Your task to perform on an android device: find photos in the google photos app Image 0: 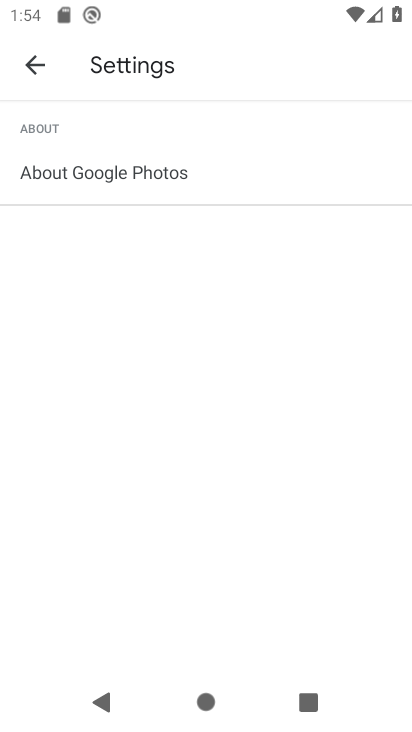
Step 0: click (38, 71)
Your task to perform on an android device: find photos in the google photos app Image 1: 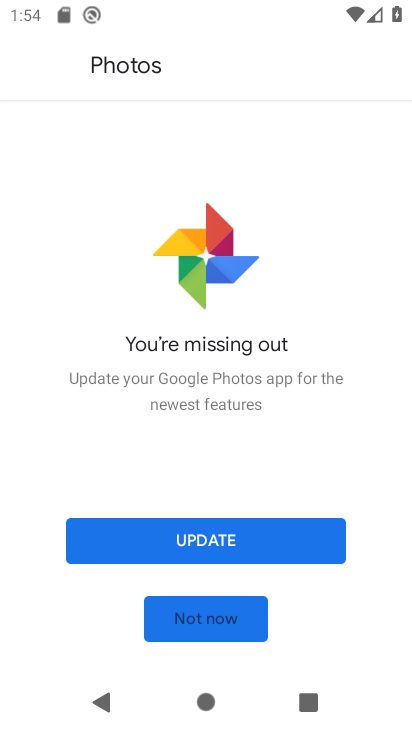
Step 1: click (174, 613)
Your task to perform on an android device: find photos in the google photos app Image 2: 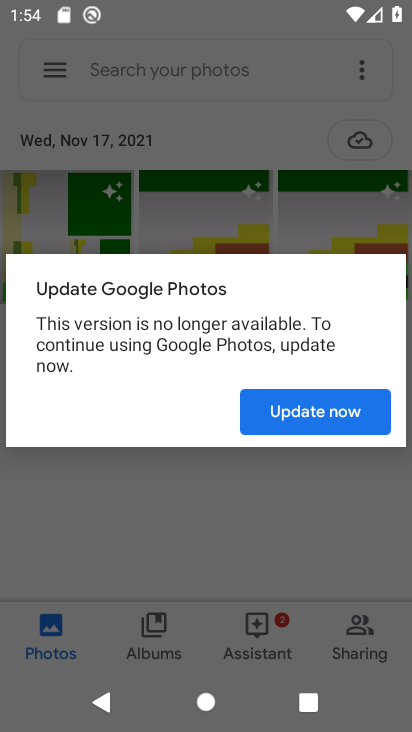
Step 2: click (188, 538)
Your task to perform on an android device: find photos in the google photos app Image 3: 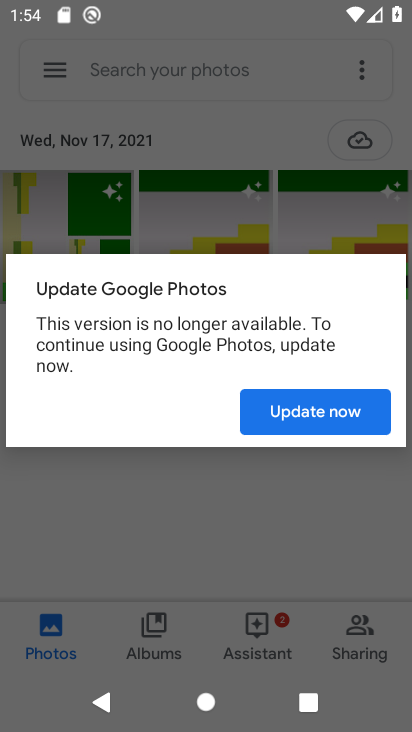
Step 3: press back button
Your task to perform on an android device: find photos in the google photos app Image 4: 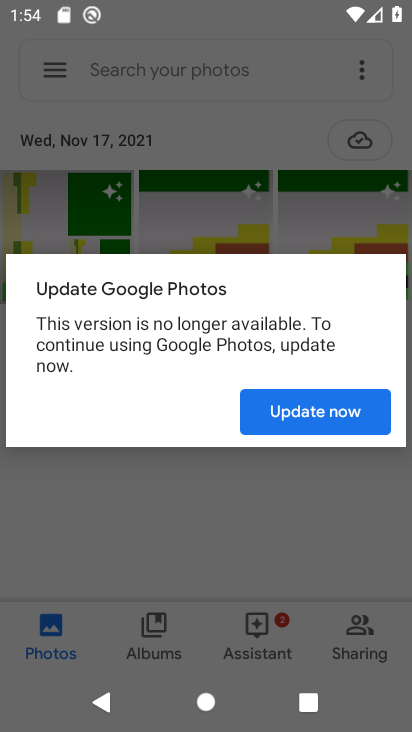
Step 4: click (296, 422)
Your task to perform on an android device: find photos in the google photos app Image 5: 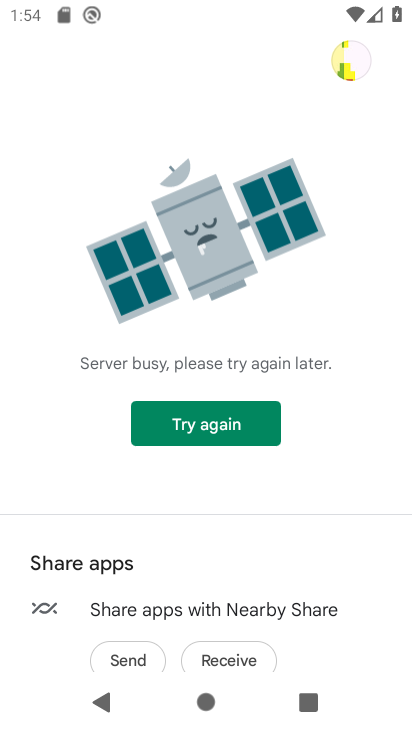
Step 5: press back button
Your task to perform on an android device: find photos in the google photos app Image 6: 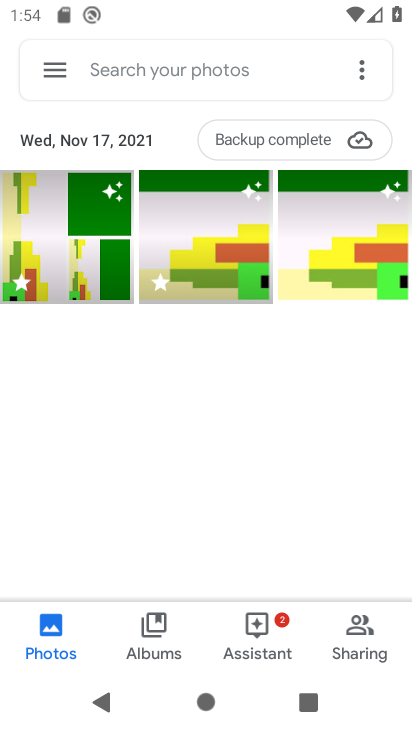
Step 6: click (61, 628)
Your task to perform on an android device: find photos in the google photos app Image 7: 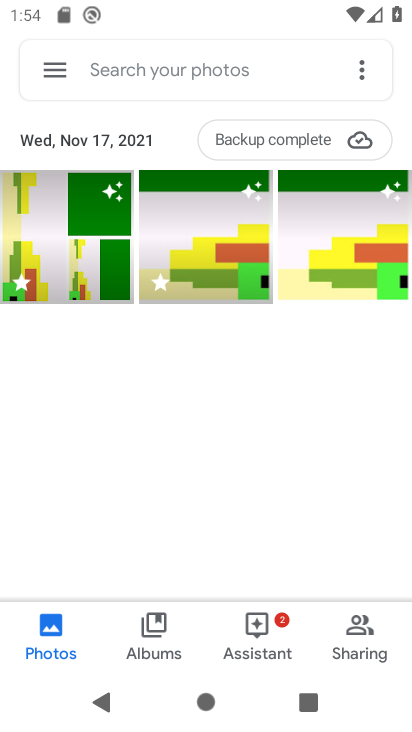
Step 7: task complete